Your task to perform on an android device: turn off improve location accuracy Image 0: 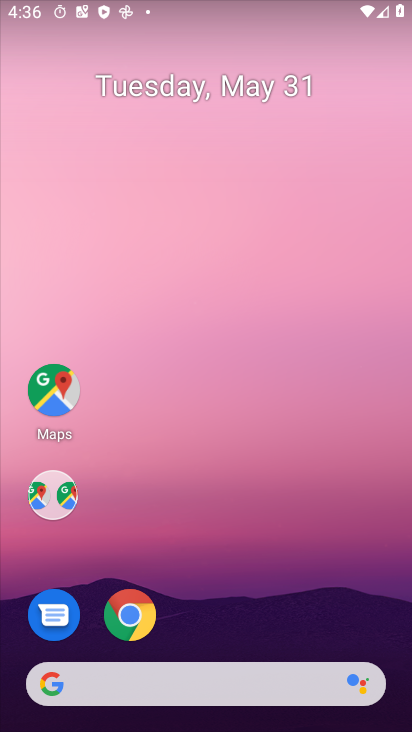
Step 0: drag from (278, 560) to (305, 97)
Your task to perform on an android device: turn off improve location accuracy Image 1: 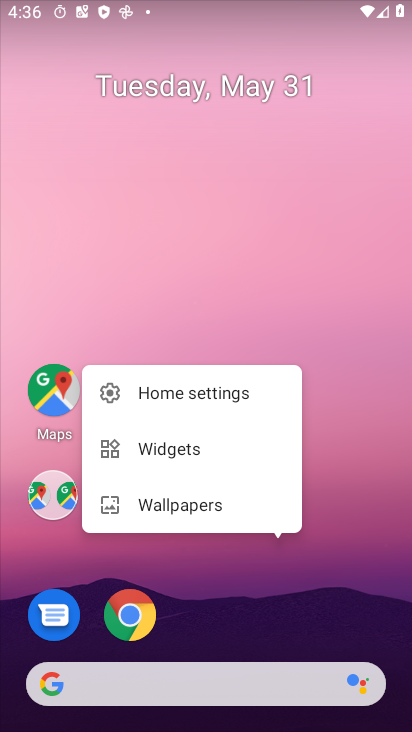
Step 1: drag from (300, 476) to (296, 15)
Your task to perform on an android device: turn off improve location accuracy Image 2: 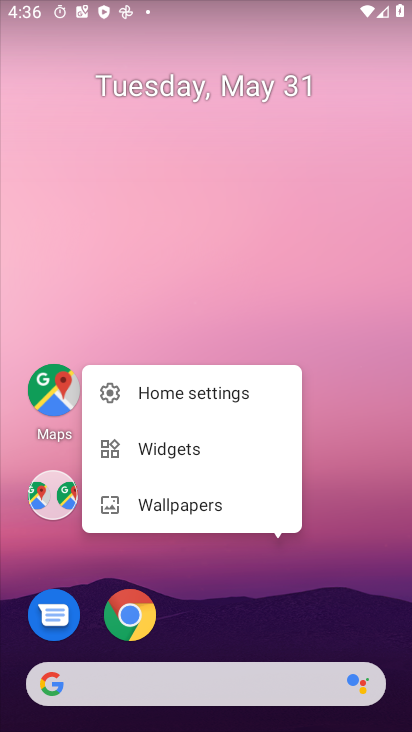
Step 2: click (203, 2)
Your task to perform on an android device: turn off improve location accuracy Image 3: 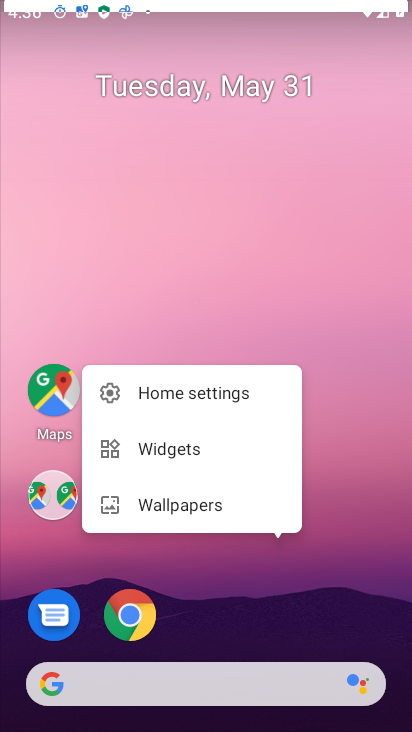
Step 3: drag from (351, 348) to (333, 82)
Your task to perform on an android device: turn off improve location accuracy Image 4: 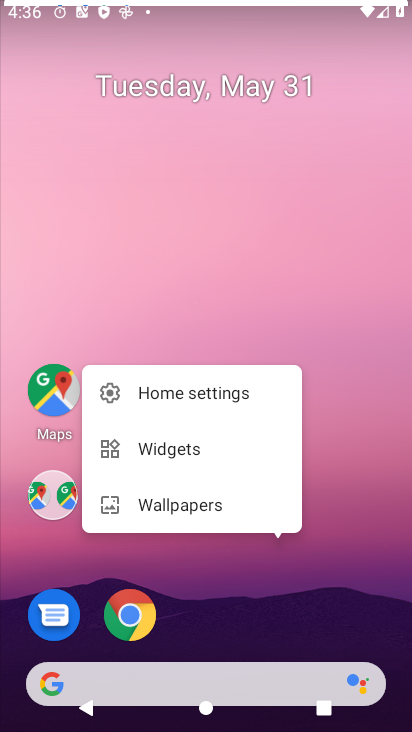
Step 4: drag from (307, 258) to (303, 224)
Your task to perform on an android device: turn off improve location accuracy Image 5: 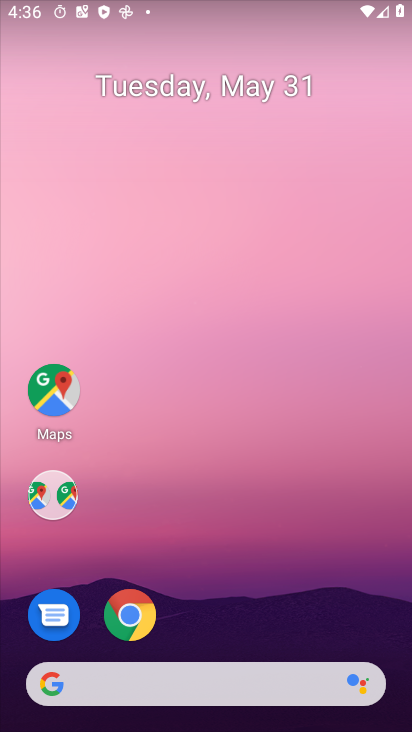
Step 5: click (275, 251)
Your task to perform on an android device: turn off improve location accuracy Image 6: 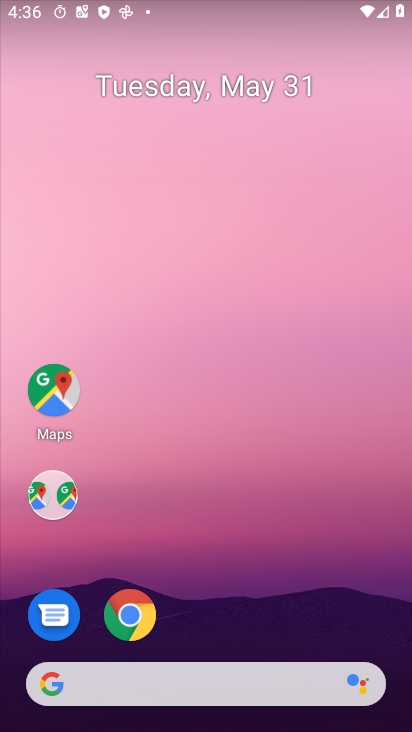
Step 6: drag from (273, 536) to (258, 0)
Your task to perform on an android device: turn off improve location accuracy Image 7: 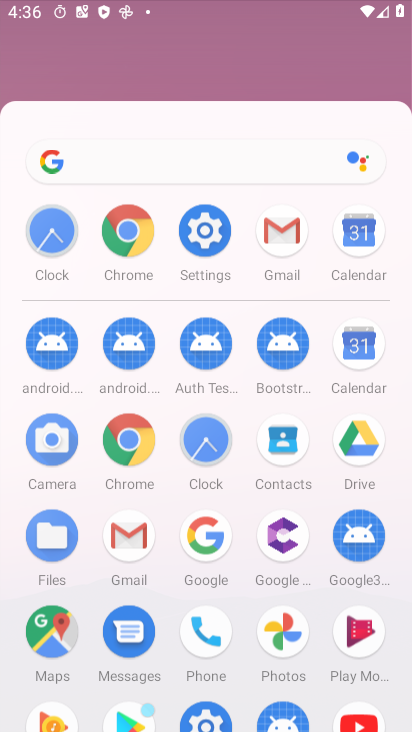
Step 7: drag from (232, 558) to (222, 157)
Your task to perform on an android device: turn off improve location accuracy Image 8: 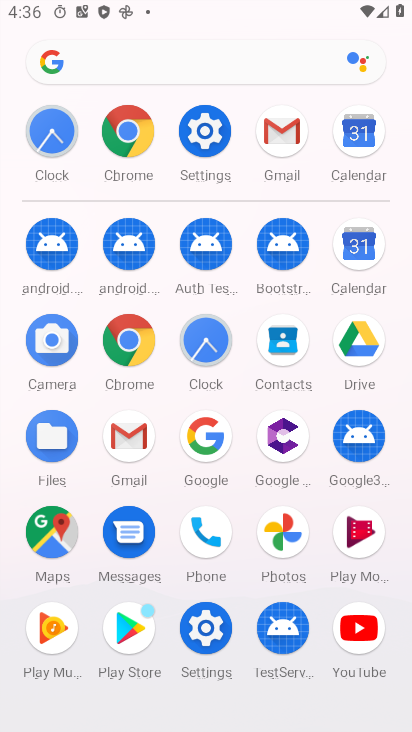
Step 8: click (201, 126)
Your task to perform on an android device: turn off improve location accuracy Image 9: 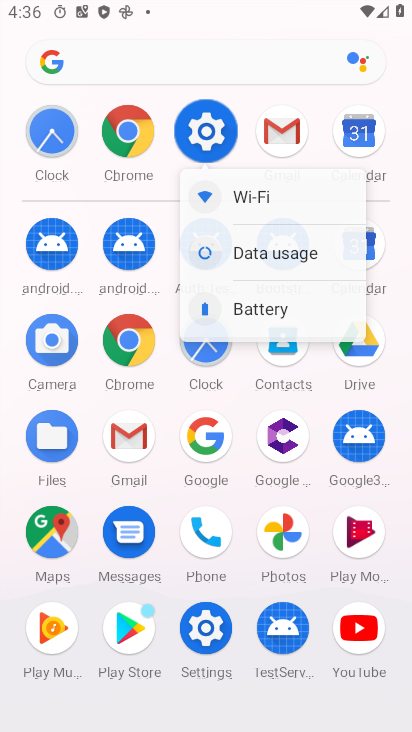
Step 9: click (203, 125)
Your task to perform on an android device: turn off improve location accuracy Image 10: 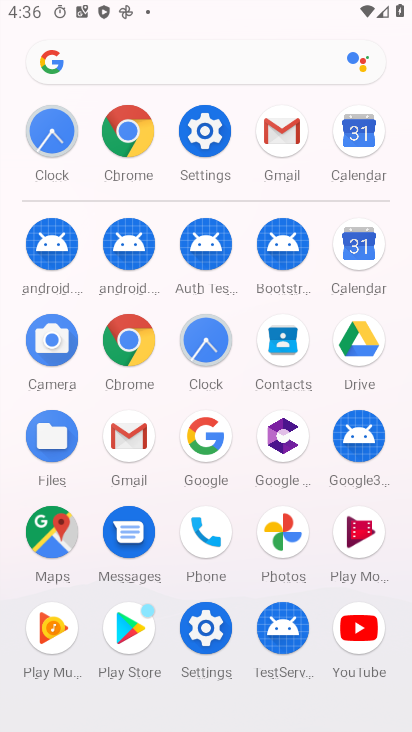
Step 10: click (209, 128)
Your task to perform on an android device: turn off improve location accuracy Image 11: 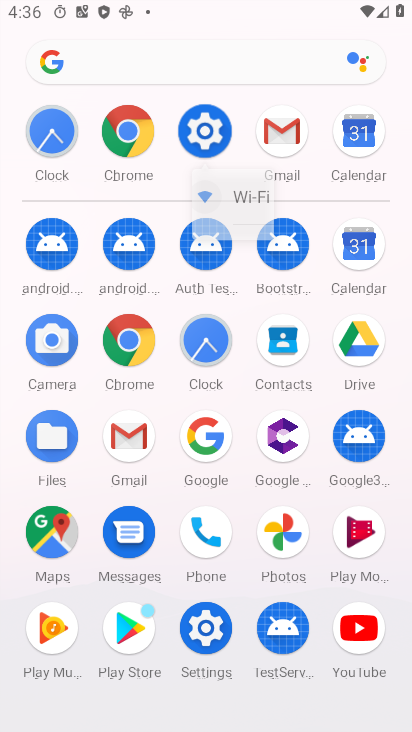
Step 11: click (217, 133)
Your task to perform on an android device: turn off improve location accuracy Image 12: 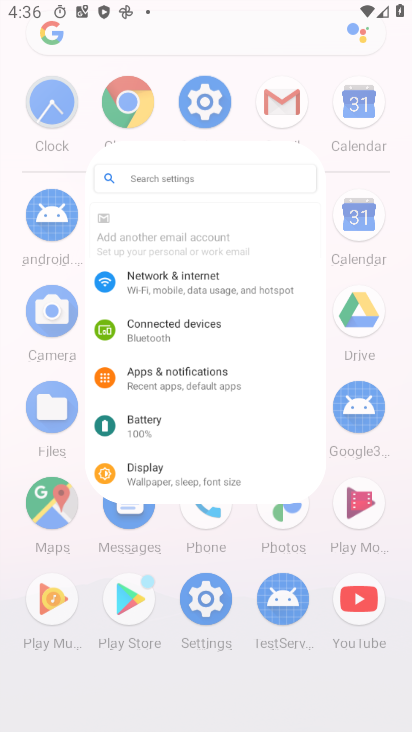
Step 12: click (217, 137)
Your task to perform on an android device: turn off improve location accuracy Image 13: 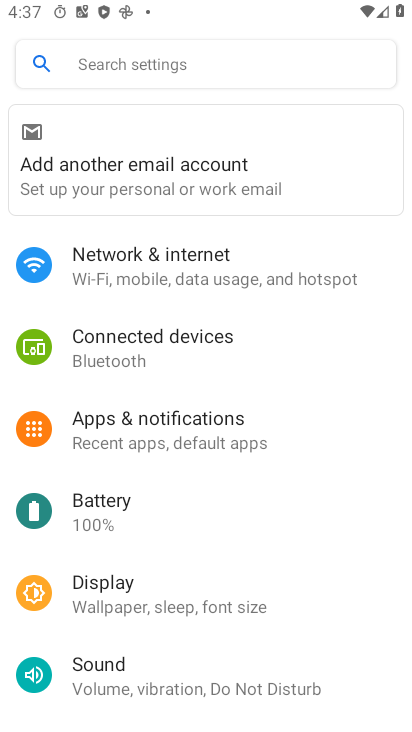
Step 13: drag from (195, 508) to (158, 226)
Your task to perform on an android device: turn off improve location accuracy Image 14: 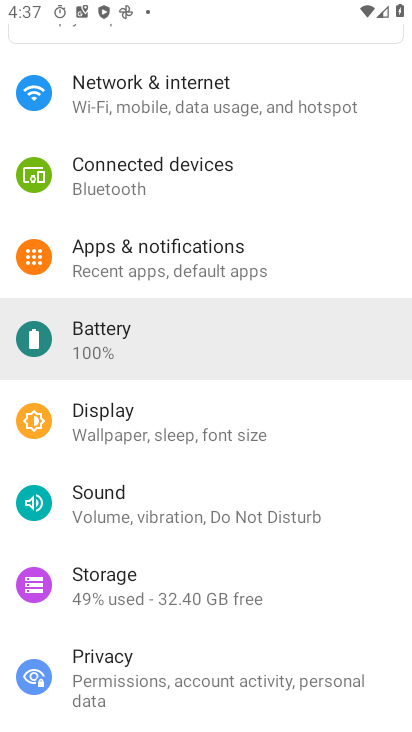
Step 14: drag from (208, 432) to (205, 212)
Your task to perform on an android device: turn off improve location accuracy Image 15: 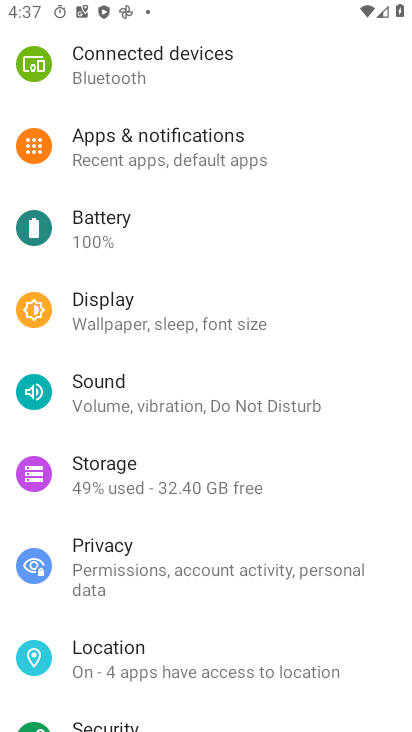
Step 15: drag from (265, 394) to (235, 179)
Your task to perform on an android device: turn off improve location accuracy Image 16: 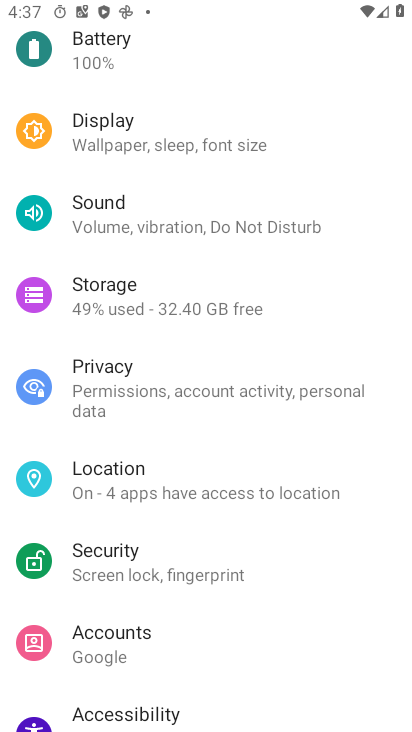
Step 16: click (147, 486)
Your task to perform on an android device: turn off improve location accuracy Image 17: 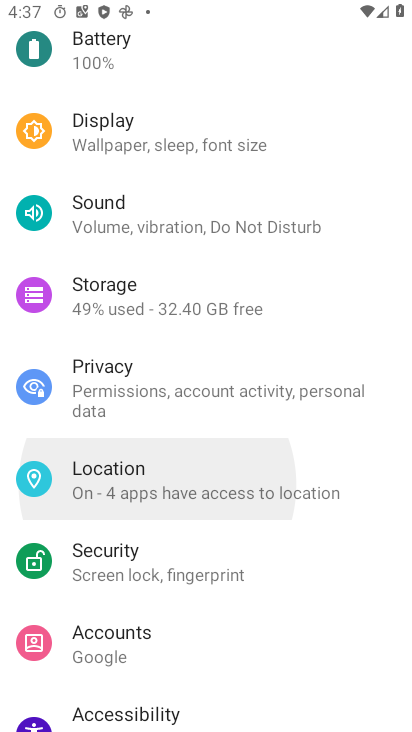
Step 17: click (147, 485)
Your task to perform on an android device: turn off improve location accuracy Image 18: 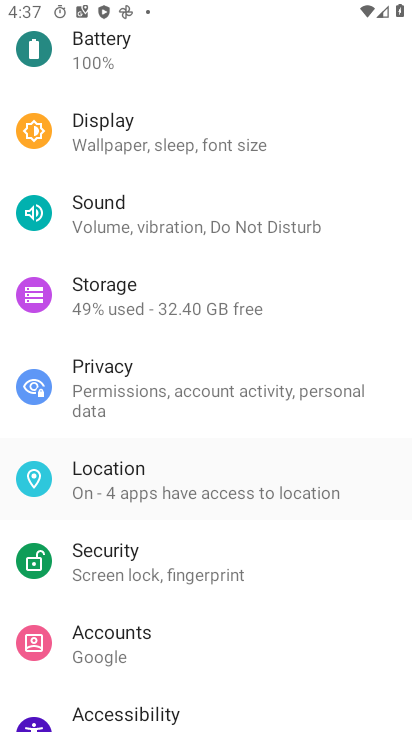
Step 18: click (149, 486)
Your task to perform on an android device: turn off improve location accuracy Image 19: 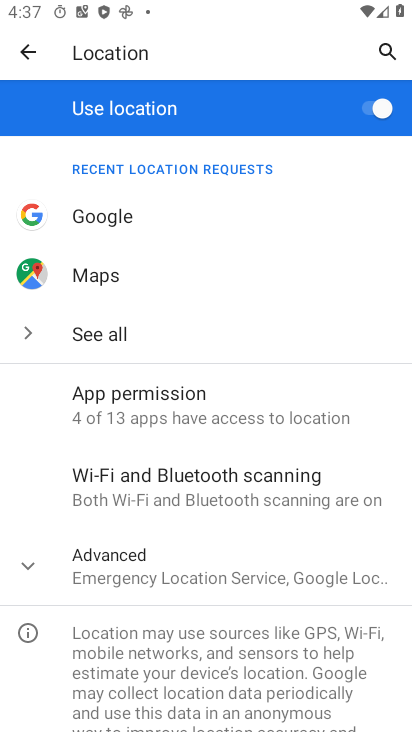
Step 19: click (155, 570)
Your task to perform on an android device: turn off improve location accuracy Image 20: 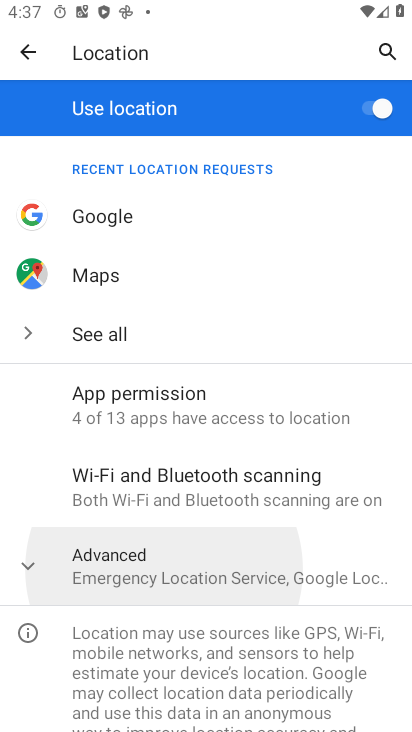
Step 20: click (155, 570)
Your task to perform on an android device: turn off improve location accuracy Image 21: 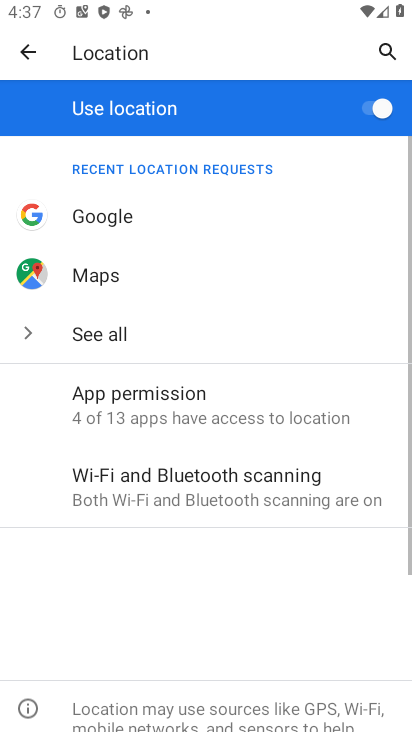
Step 21: click (155, 570)
Your task to perform on an android device: turn off improve location accuracy Image 22: 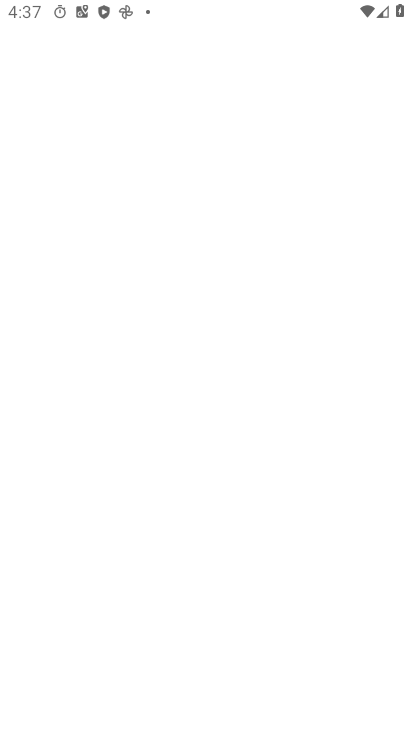
Step 22: drag from (254, 543) to (219, 239)
Your task to perform on an android device: turn off improve location accuracy Image 23: 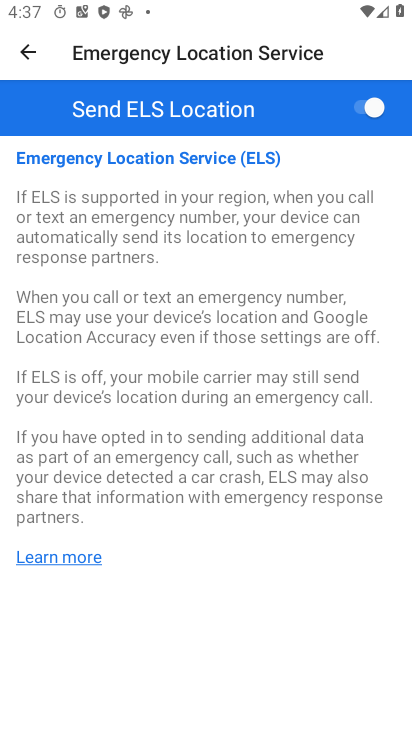
Step 23: click (27, 54)
Your task to perform on an android device: turn off improve location accuracy Image 24: 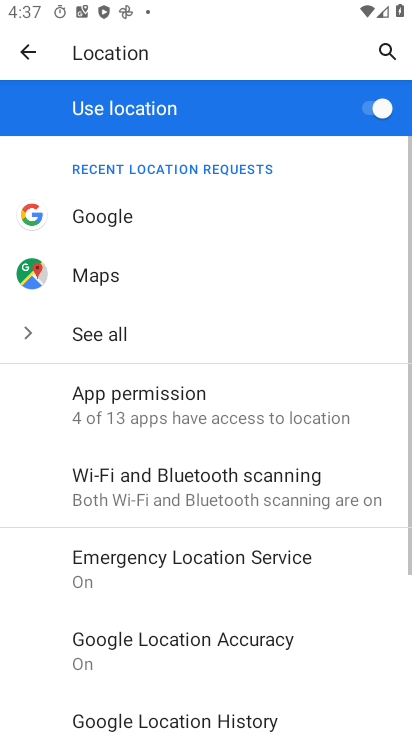
Step 24: drag from (252, 588) to (212, 281)
Your task to perform on an android device: turn off improve location accuracy Image 25: 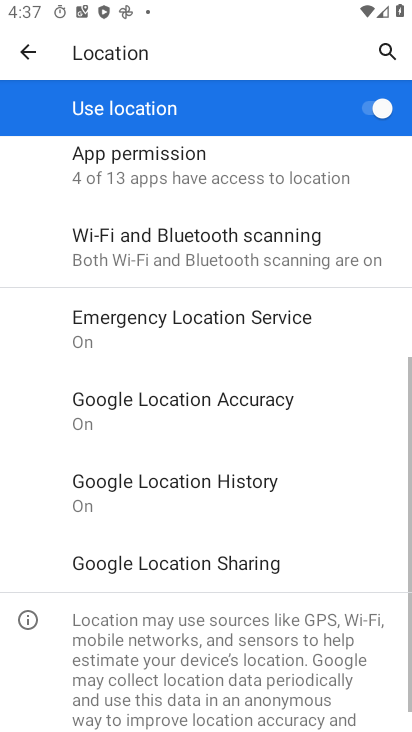
Step 25: drag from (256, 526) to (268, 271)
Your task to perform on an android device: turn off improve location accuracy Image 26: 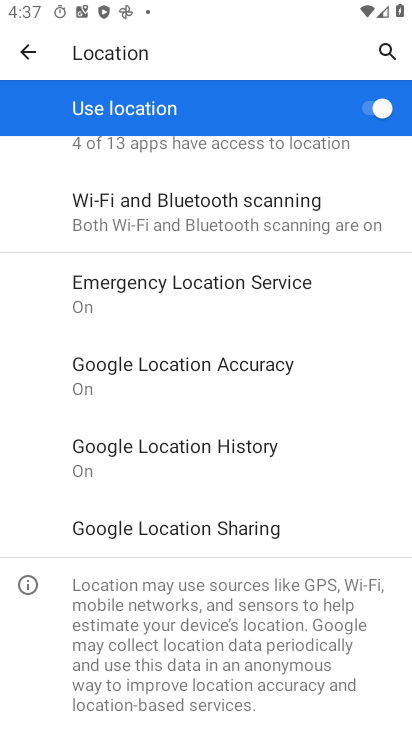
Step 26: click (205, 361)
Your task to perform on an android device: turn off improve location accuracy Image 27: 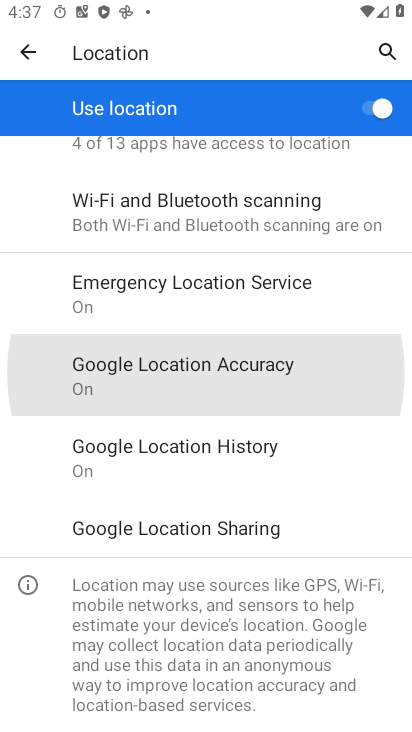
Step 27: click (205, 361)
Your task to perform on an android device: turn off improve location accuracy Image 28: 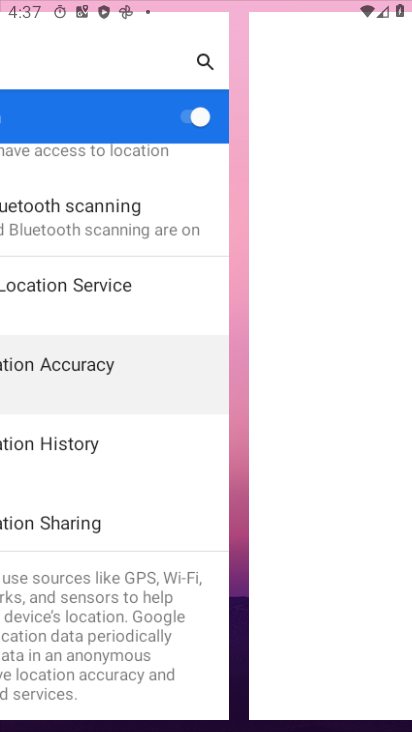
Step 28: click (205, 361)
Your task to perform on an android device: turn off improve location accuracy Image 29: 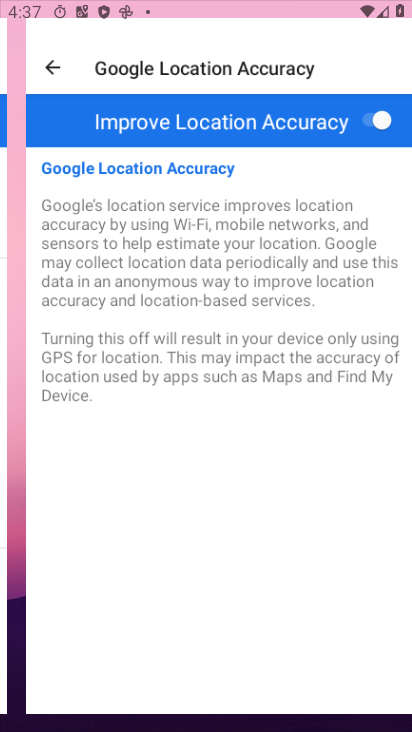
Step 29: click (205, 361)
Your task to perform on an android device: turn off improve location accuracy Image 30: 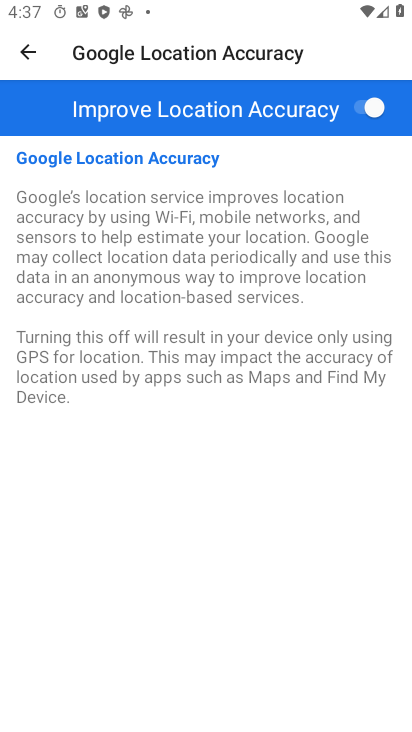
Step 30: task complete